Your task to perform on an android device: toggle improve location accuracy Image 0: 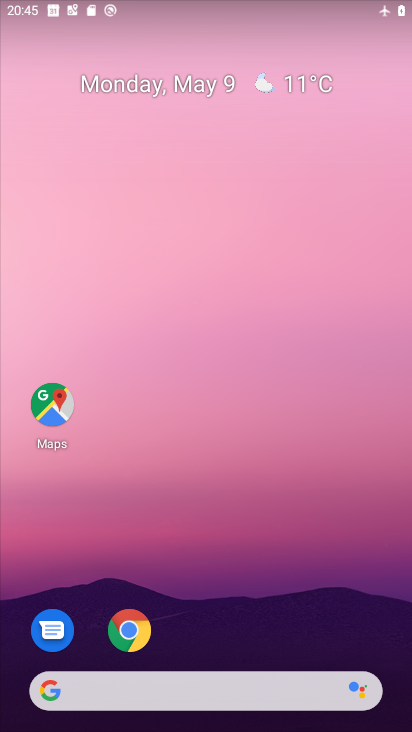
Step 0: drag from (230, 649) to (268, 249)
Your task to perform on an android device: toggle improve location accuracy Image 1: 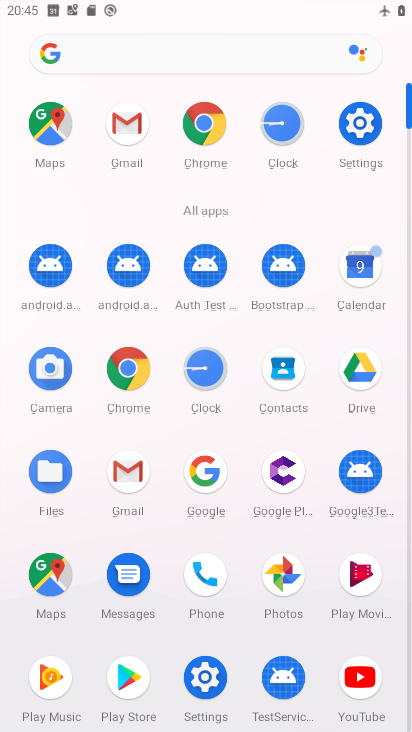
Step 1: click (383, 123)
Your task to perform on an android device: toggle improve location accuracy Image 2: 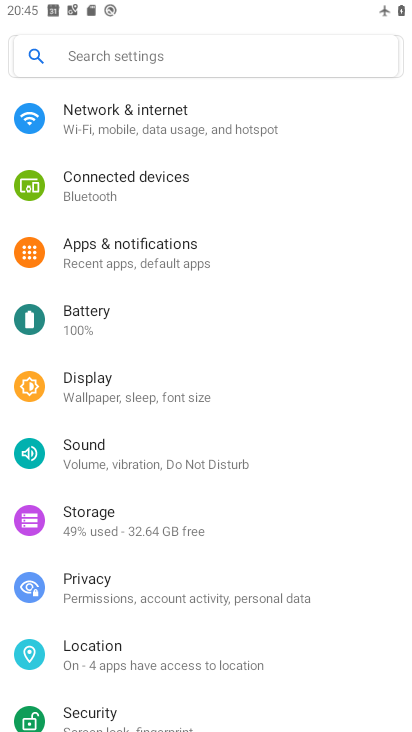
Step 2: click (205, 668)
Your task to perform on an android device: toggle improve location accuracy Image 3: 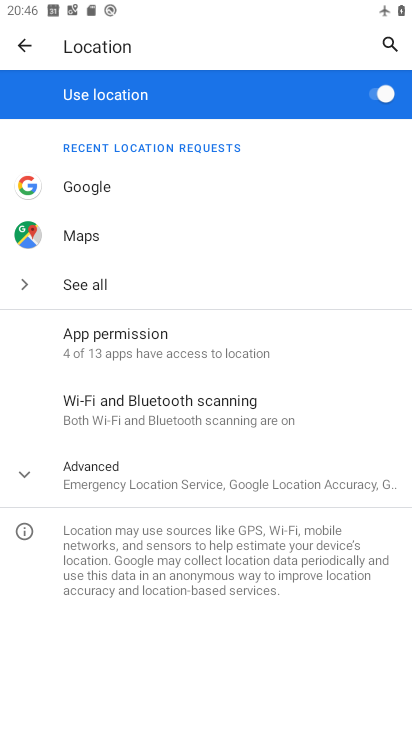
Step 3: click (23, 479)
Your task to perform on an android device: toggle improve location accuracy Image 4: 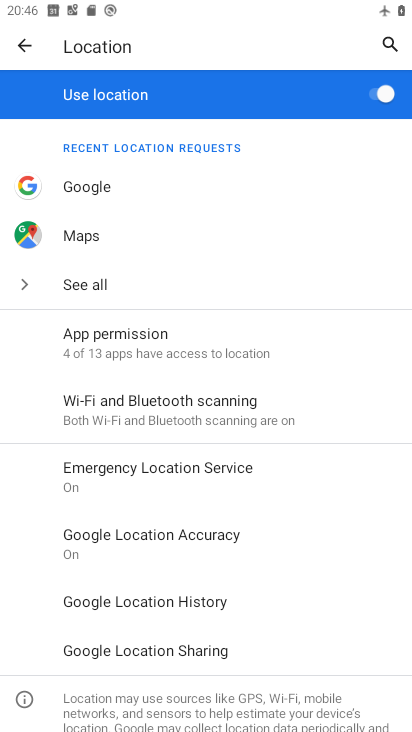
Step 4: click (199, 537)
Your task to perform on an android device: toggle improve location accuracy Image 5: 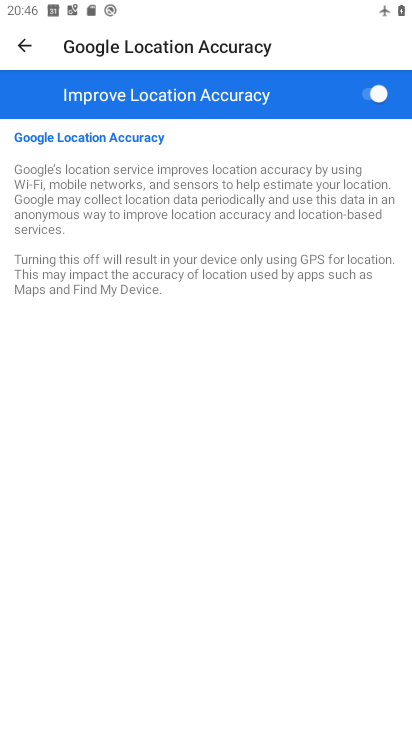
Step 5: click (374, 92)
Your task to perform on an android device: toggle improve location accuracy Image 6: 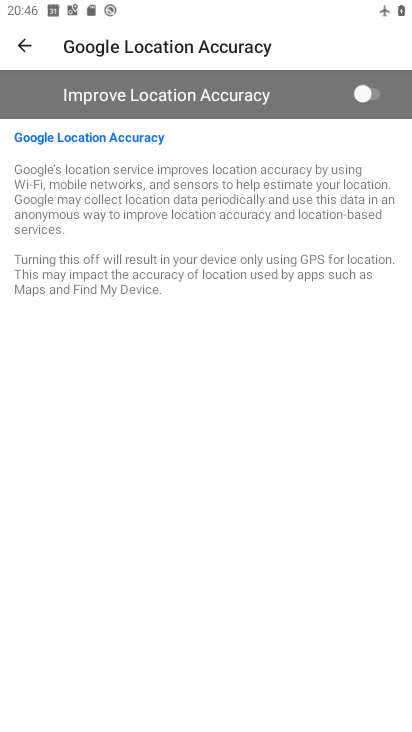
Step 6: task complete